Your task to perform on an android device: What's on my calendar today? Image 0: 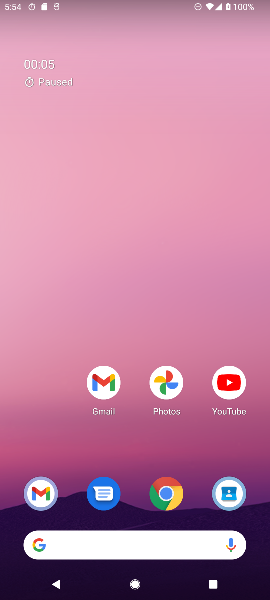
Step 0: drag from (169, 551) to (151, 137)
Your task to perform on an android device: What's on my calendar today? Image 1: 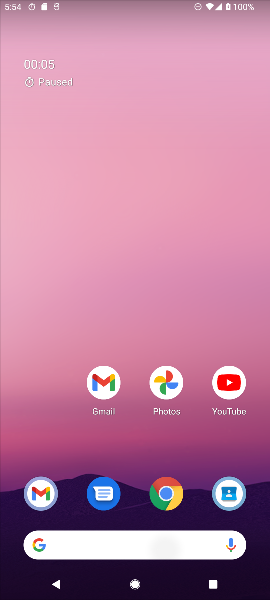
Step 1: drag from (218, 414) to (218, 130)
Your task to perform on an android device: What's on my calendar today? Image 2: 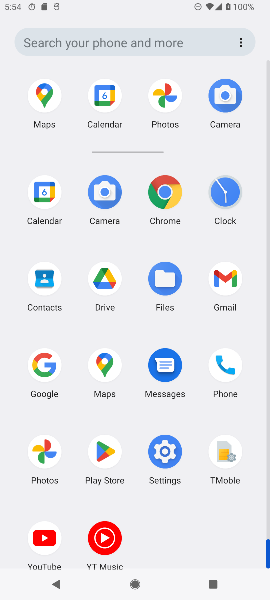
Step 2: click (44, 190)
Your task to perform on an android device: What's on my calendar today? Image 3: 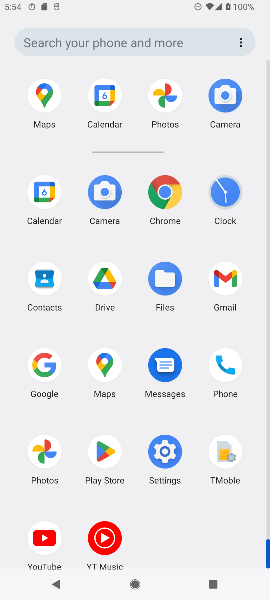
Step 3: click (41, 193)
Your task to perform on an android device: What's on my calendar today? Image 4: 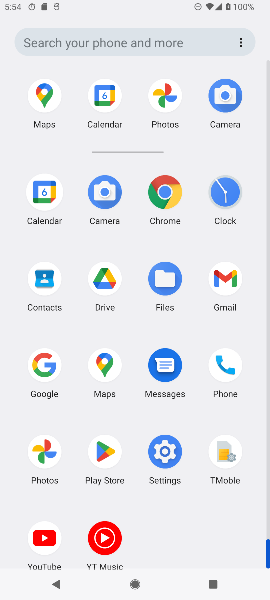
Step 4: click (41, 193)
Your task to perform on an android device: What's on my calendar today? Image 5: 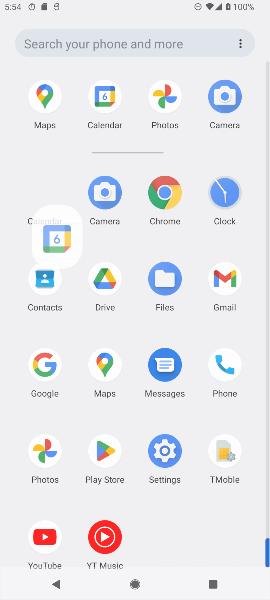
Step 5: click (41, 193)
Your task to perform on an android device: What's on my calendar today? Image 6: 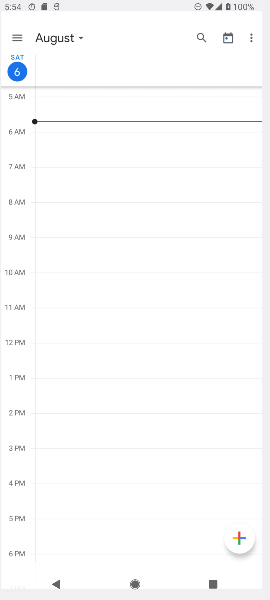
Step 6: click (41, 193)
Your task to perform on an android device: What's on my calendar today? Image 7: 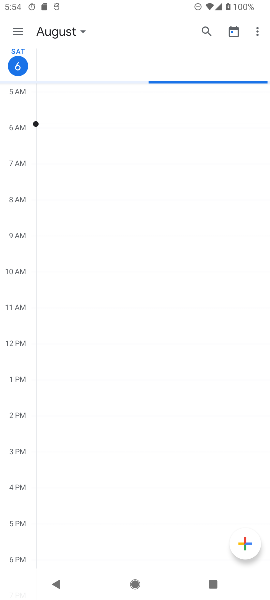
Step 7: click (41, 193)
Your task to perform on an android device: What's on my calendar today? Image 8: 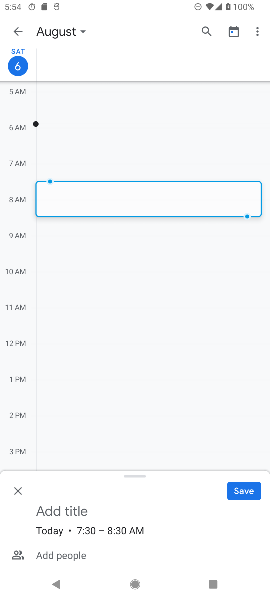
Step 8: click (77, 30)
Your task to perform on an android device: What's on my calendar today? Image 9: 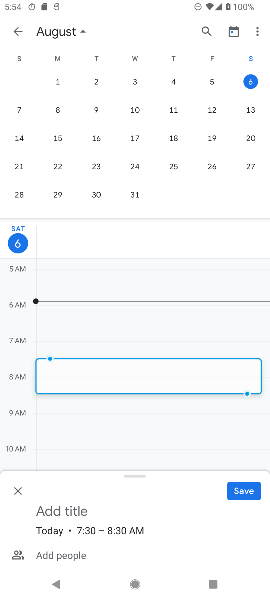
Step 9: click (242, 79)
Your task to perform on an android device: What's on my calendar today? Image 10: 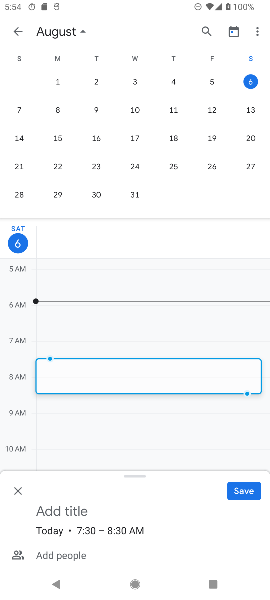
Step 10: click (242, 79)
Your task to perform on an android device: What's on my calendar today? Image 11: 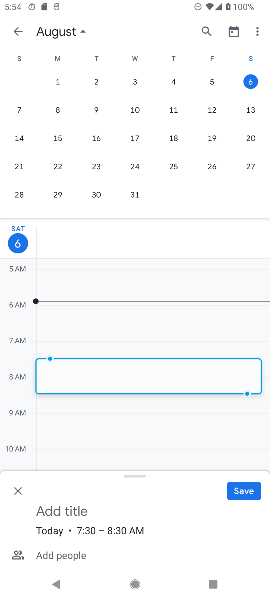
Step 11: task complete